Your task to perform on an android device: Open Wikipedia Image 0: 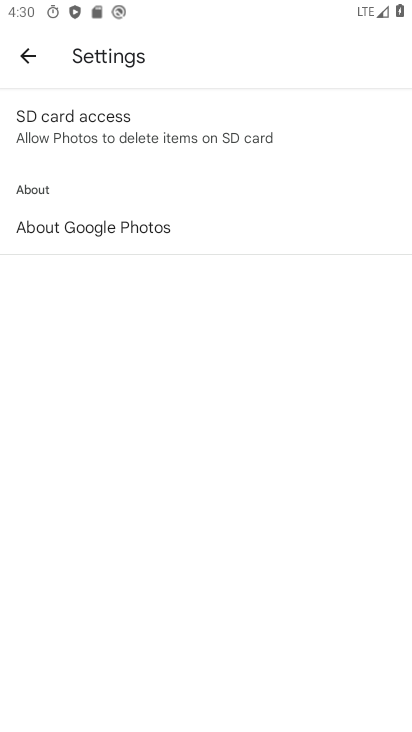
Step 0: press home button
Your task to perform on an android device: Open Wikipedia Image 1: 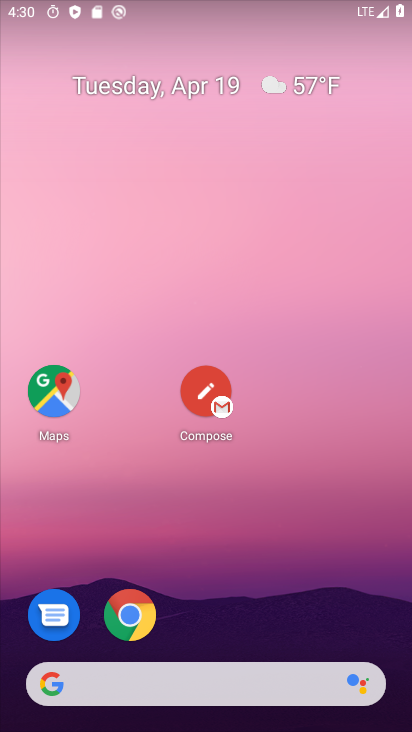
Step 1: drag from (221, 649) to (231, 111)
Your task to perform on an android device: Open Wikipedia Image 2: 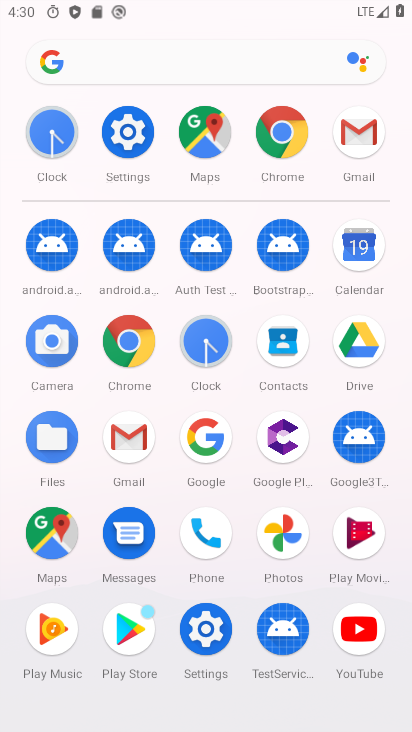
Step 2: click (137, 351)
Your task to perform on an android device: Open Wikipedia Image 3: 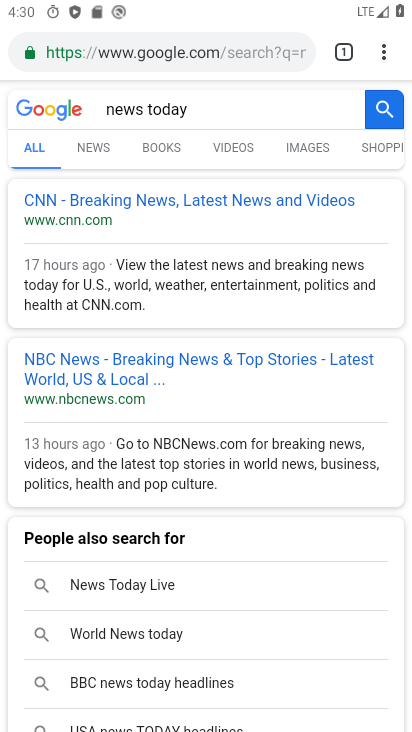
Step 3: click (275, 47)
Your task to perform on an android device: Open Wikipedia Image 4: 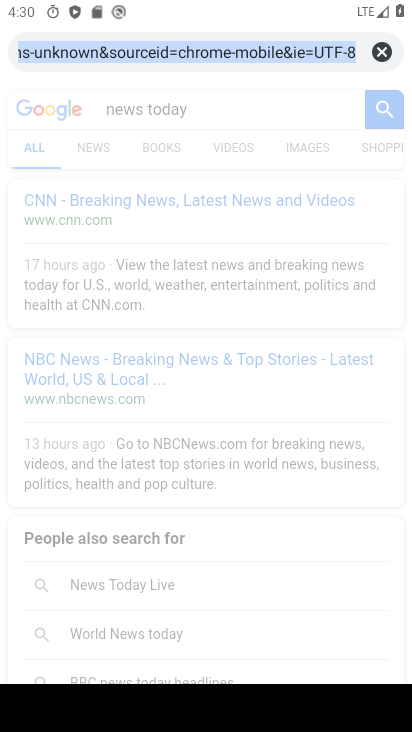
Step 4: click (385, 48)
Your task to perform on an android device: Open Wikipedia Image 5: 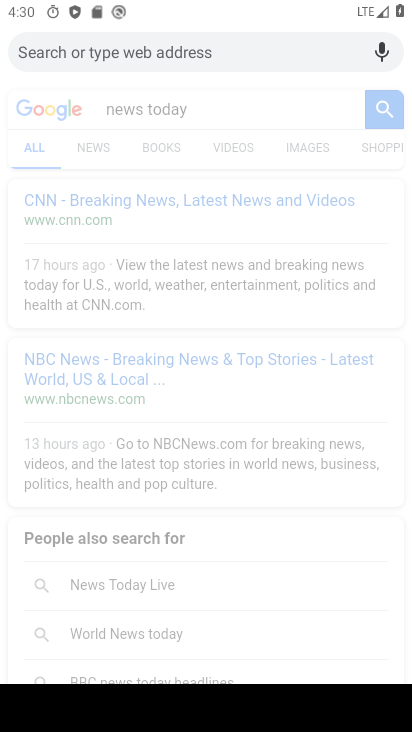
Step 5: type "wikipedia"
Your task to perform on an android device: Open Wikipedia Image 6: 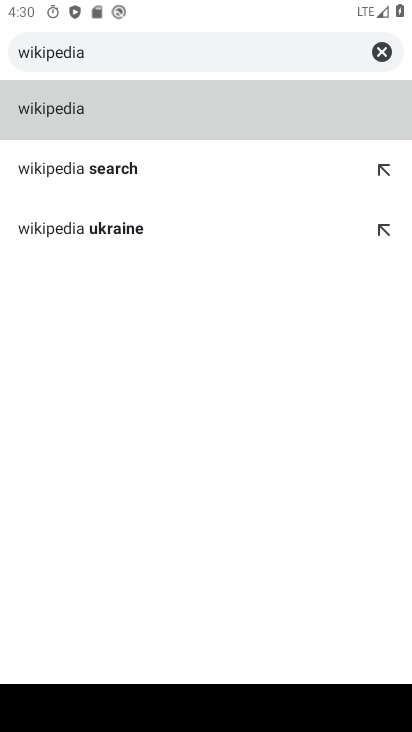
Step 6: click (119, 110)
Your task to perform on an android device: Open Wikipedia Image 7: 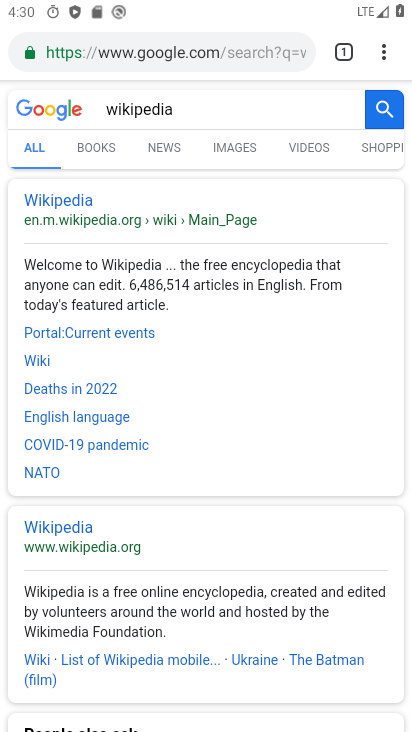
Step 7: task complete